Your task to perform on an android device: turn on location history Image 0: 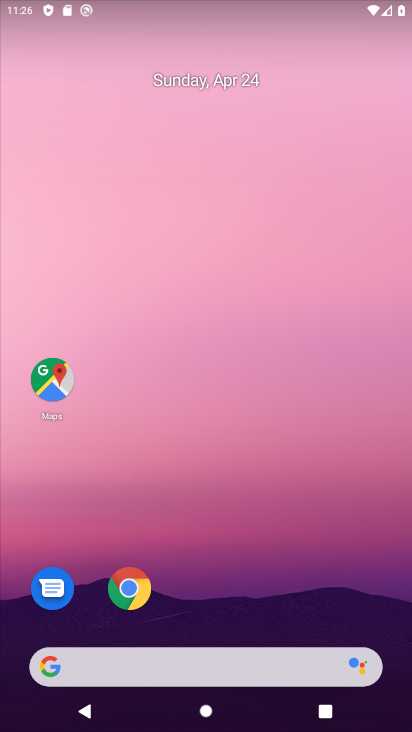
Step 0: drag from (201, 647) to (354, 1)
Your task to perform on an android device: turn on location history Image 1: 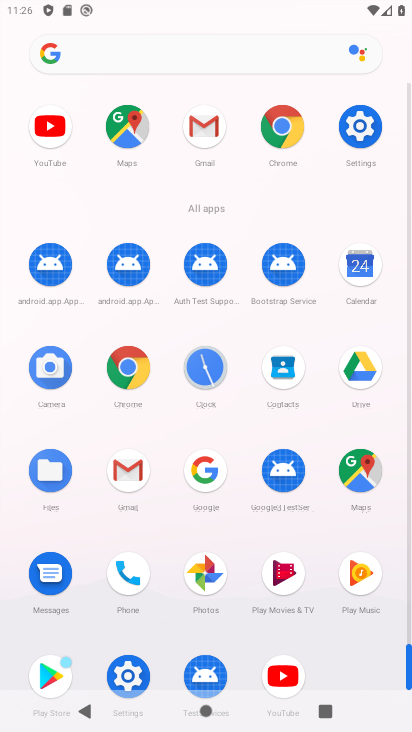
Step 1: click (126, 665)
Your task to perform on an android device: turn on location history Image 2: 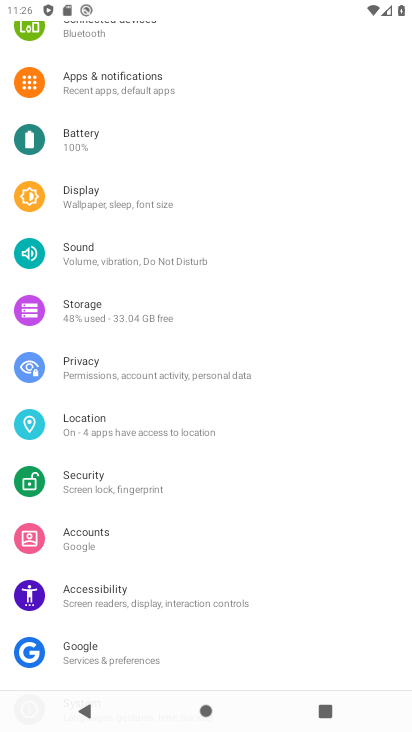
Step 2: drag from (118, 682) to (193, 251)
Your task to perform on an android device: turn on location history Image 3: 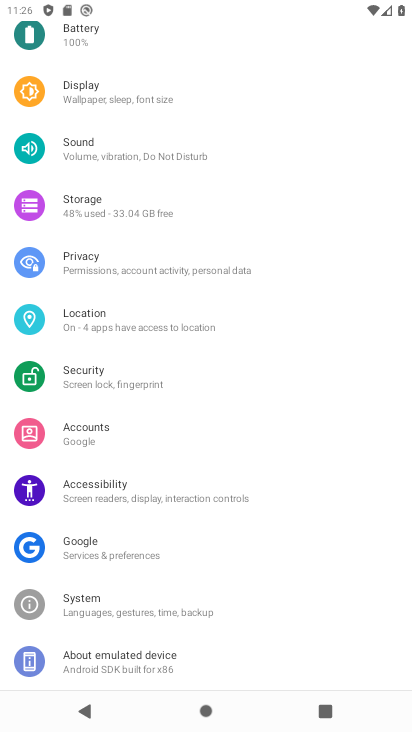
Step 3: click (120, 339)
Your task to perform on an android device: turn on location history Image 4: 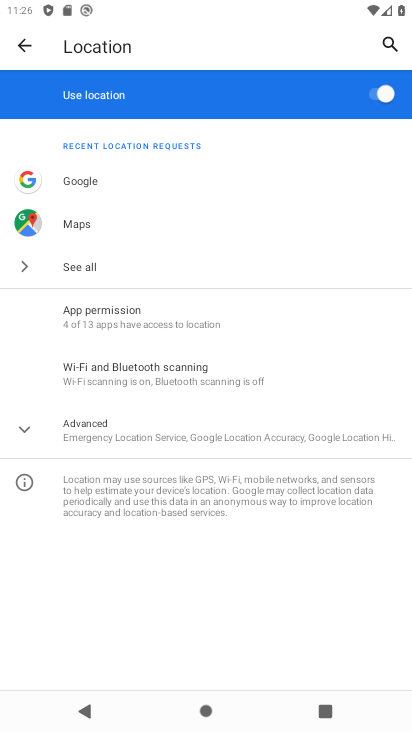
Step 4: click (153, 433)
Your task to perform on an android device: turn on location history Image 5: 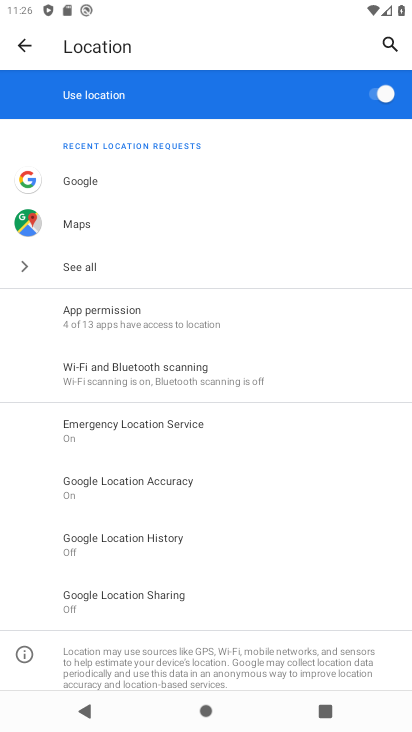
Step 5: click (200, 556)
Your task to perform on an android device: turn on location history Image 6: 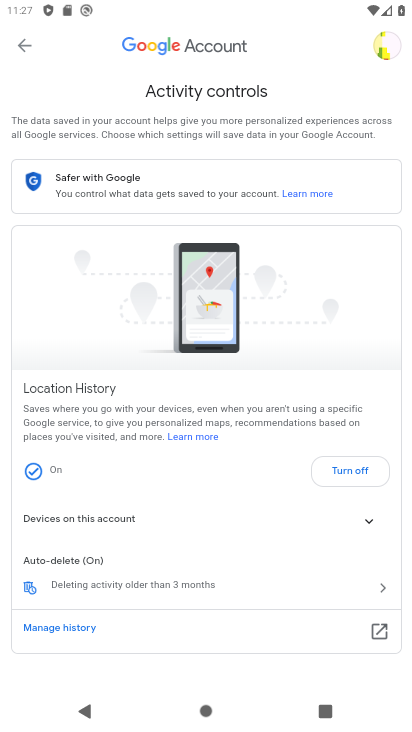
Step 6: task complete